Your task to perform on an android device: What is the news today? Image 0: 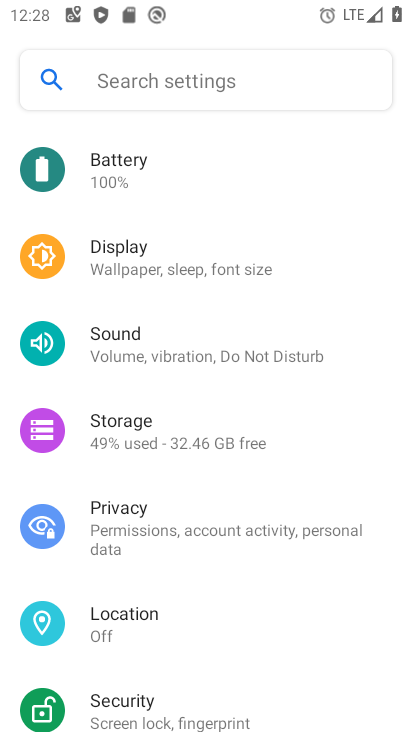
Step 0: press home button
Your task to perform on an android device: What is the news today? Image 1: 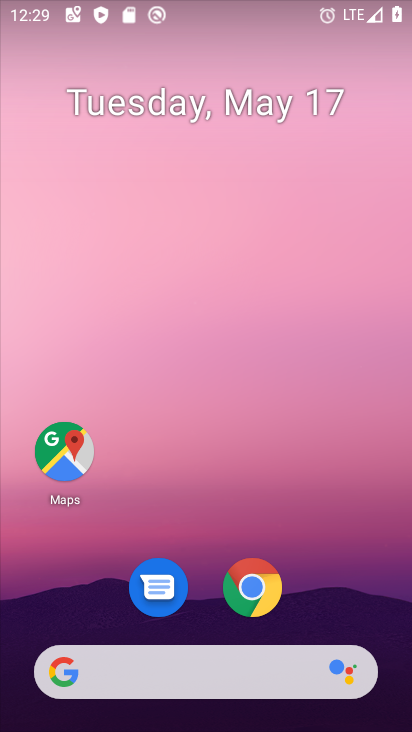
Step 1: drag from (331, 618) to (211, 10)
Your task to perform on an android device: What is the news today? Image 2: 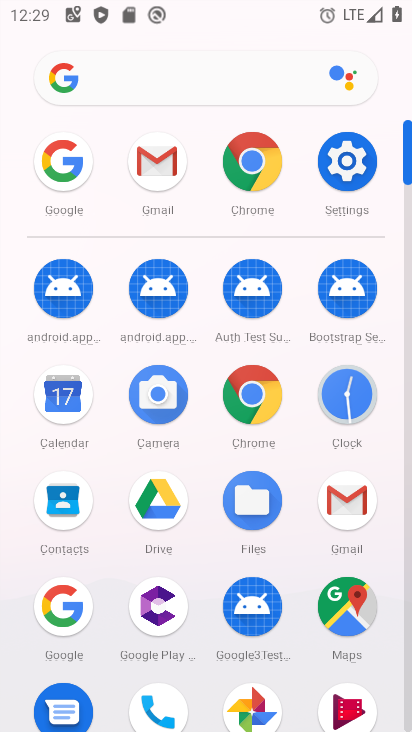
Step 2: click (52, 603)
Your task to perform on an android device: What is the news today? Image 3: 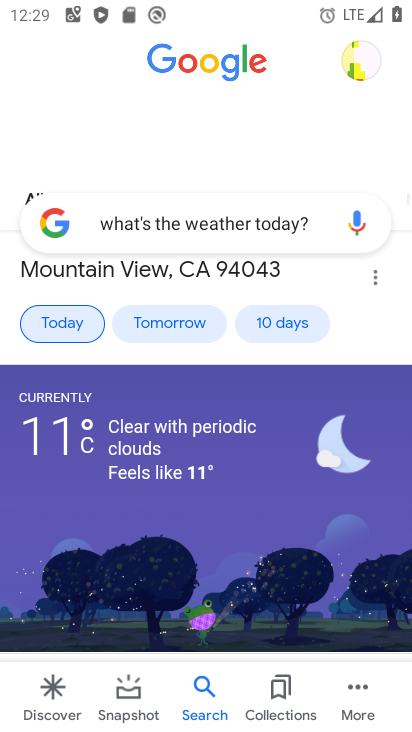
Step 3: press back button
Your task to perform on an android device: What is the news today? Image 4: 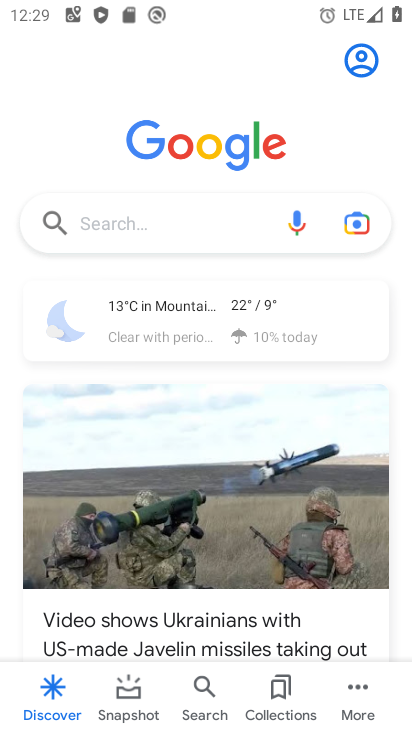
Step 4: click (173, 209)
Your task to perform on an android device: What is the news today? Image 5: 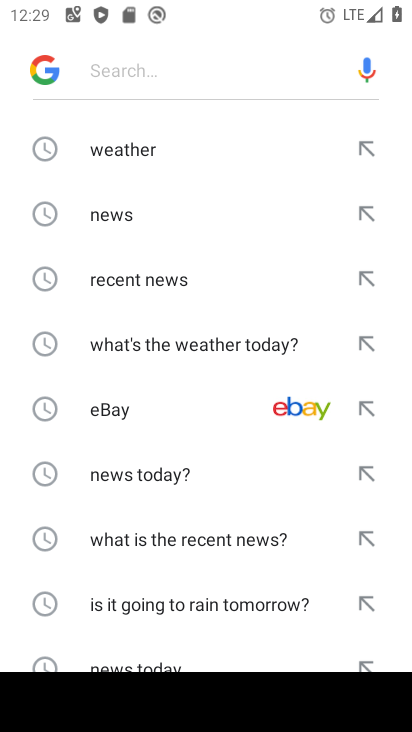
Step 5: click (160, 481)
Your task to perform on an android device: What is the news today? Image 6: 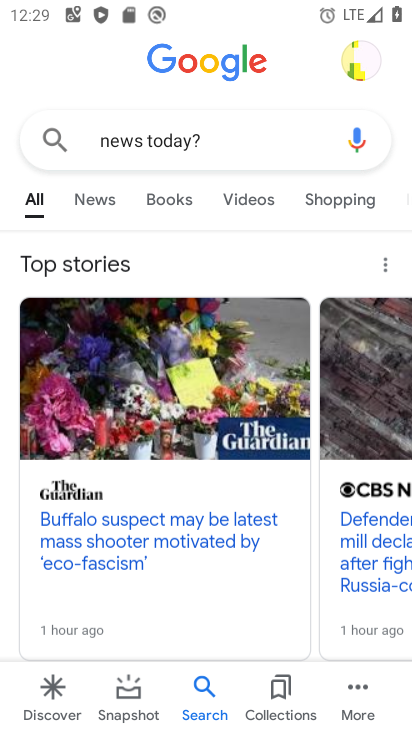
Step 6: task complete